Your task to perform on an android device: Open maps Image 0: 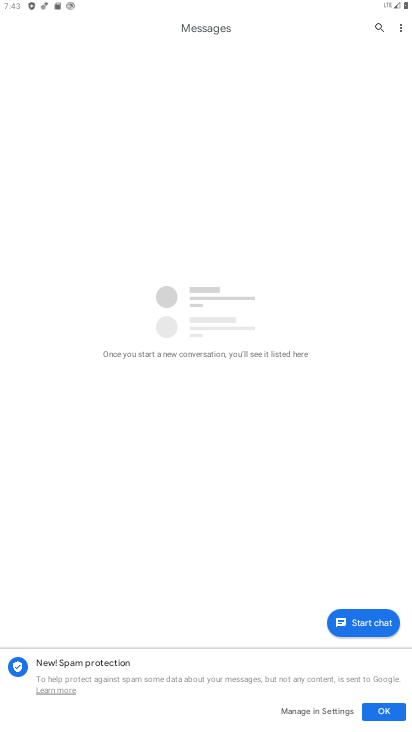
Step 0: press home button
Your task to perform on an android device: Open maps Image 1: 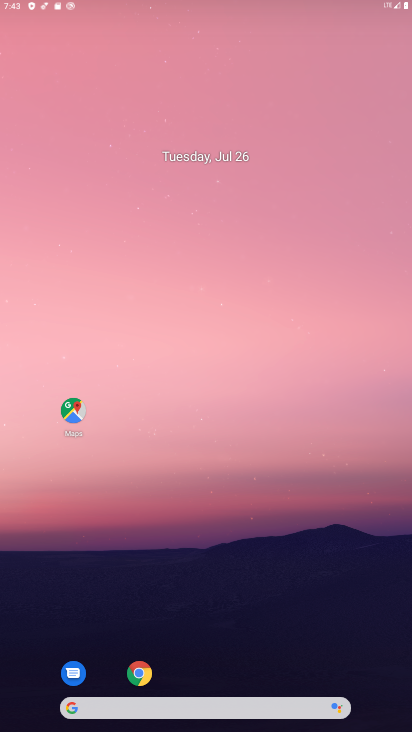
Step 1: drag from (359, 617) to (143, 38)
Your task to perform on an android device: Open maps Image 2: 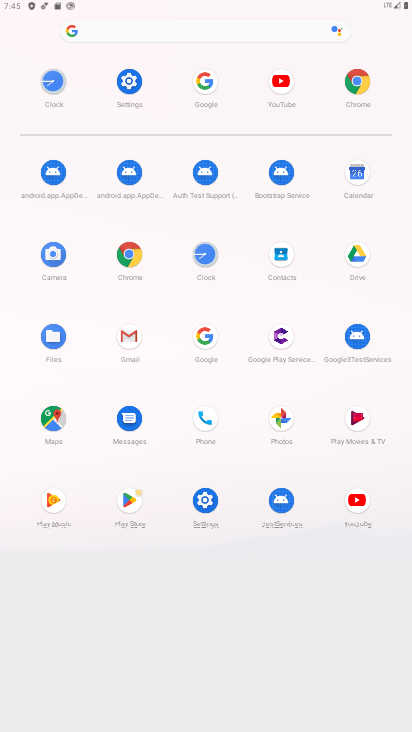
Step 2: click (45, 430)
Your task to perform on an android device: Open maps Image 3: 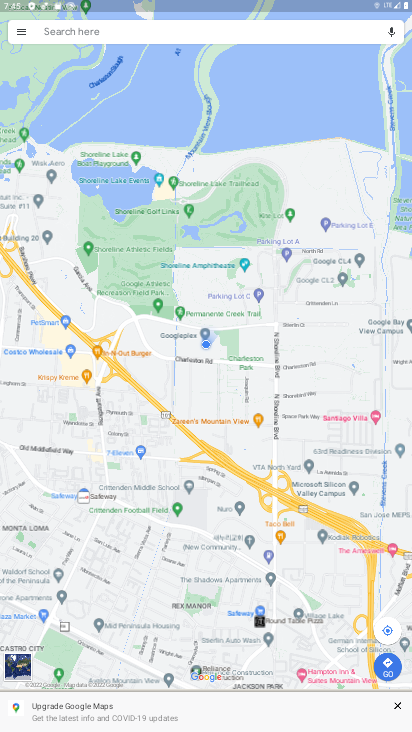
Step 3: task complete